Your task to perform on an android device: Set the phone to "Do not disturb". Image 0: 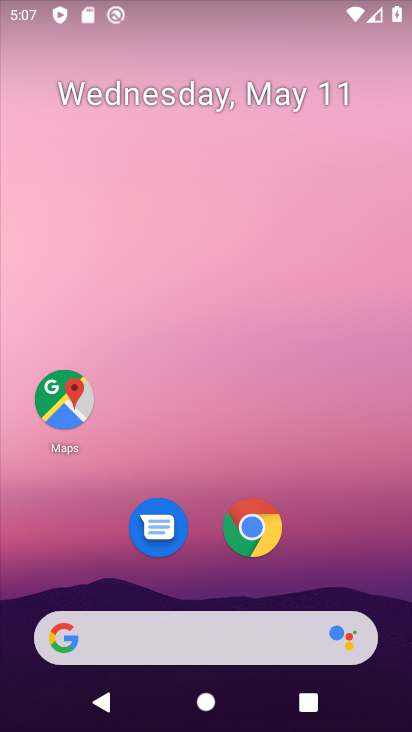
Step 0: drag from (377, 561) to (257, 62)
Your task to perform on an android device: Set the phone to "Do not disturb". Image 1: 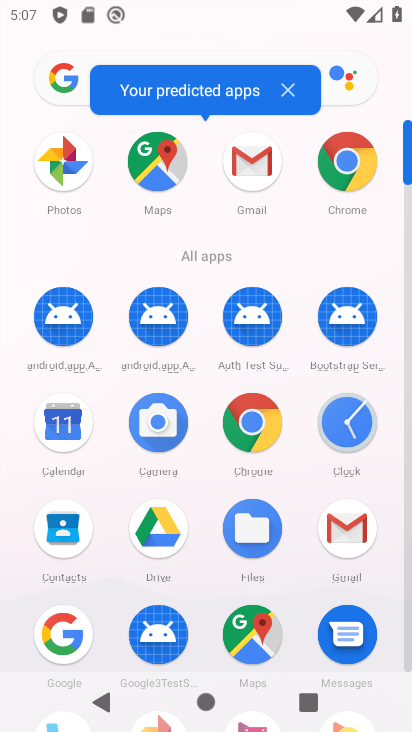
Step 1: drag from (184, 52) to (131, 484)
Your task to perform on an android device: Set the phone to "Do not disturb". Image 2: 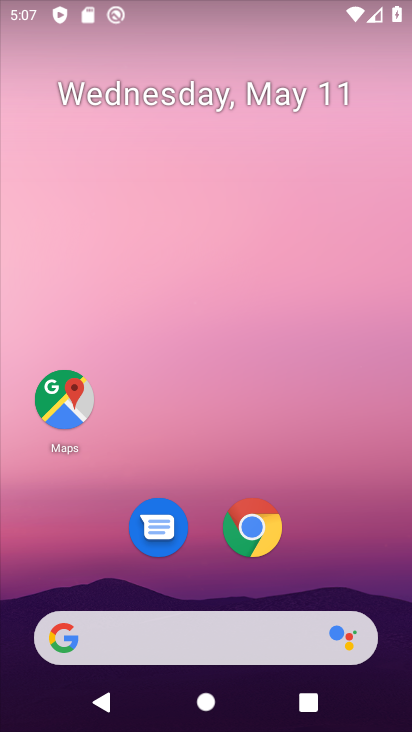
Step 2: drag from (181, 2) to (112, 455)
Your task to perform on an android device: Set the phone to "Do not disturb". Image 3: 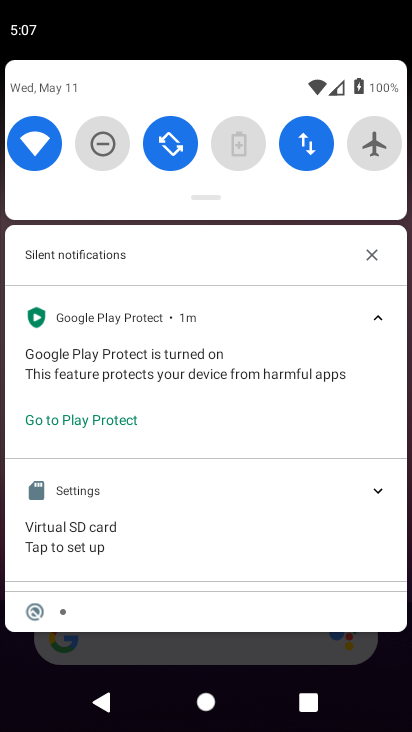
Step 3: click (90, 149)
Your task to perform on an android device: Set the phone to "Do not disturb". Image 4: 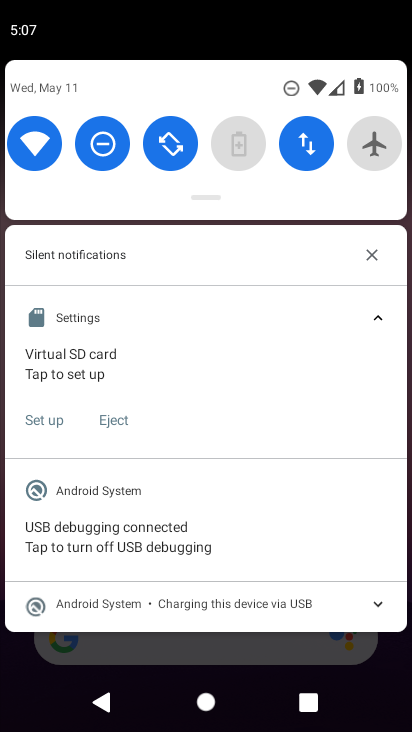
Step 4: task complete